Your task to perform on an android device: Open display settings Image 0: 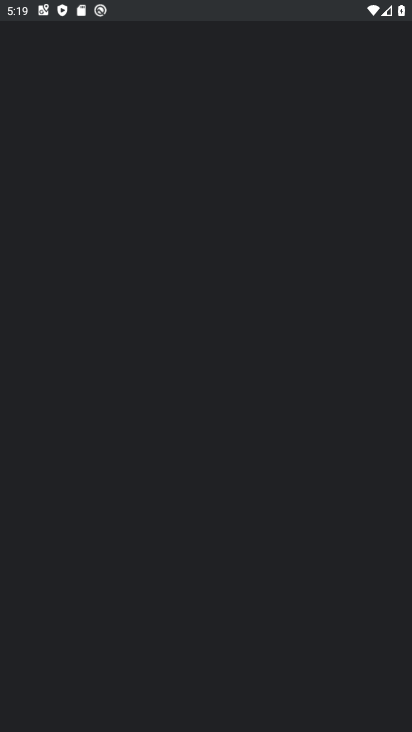
Step 0: drag from (217, 642) to (320, 24)
Your task to perform on an android device: Open display settings Image 1: 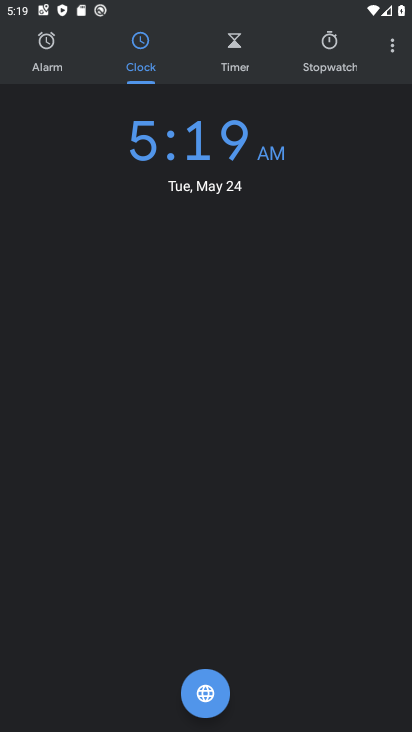
Step 1: press home button
Your task to perform on an android device: Open display settings Image 2: 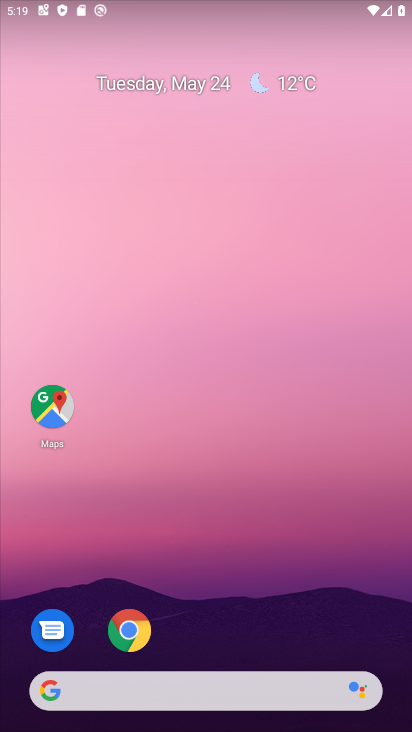
Step 2: drag from (206, 658) to (209, 77)
Your task to perform on an android device: Open display settings Image 3: 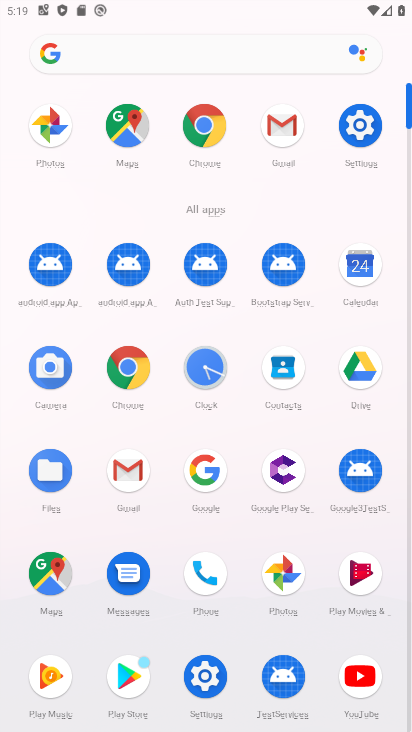
Step 3: click (359, 137)
Your task to perform on an android device: Open display settings Image 4: 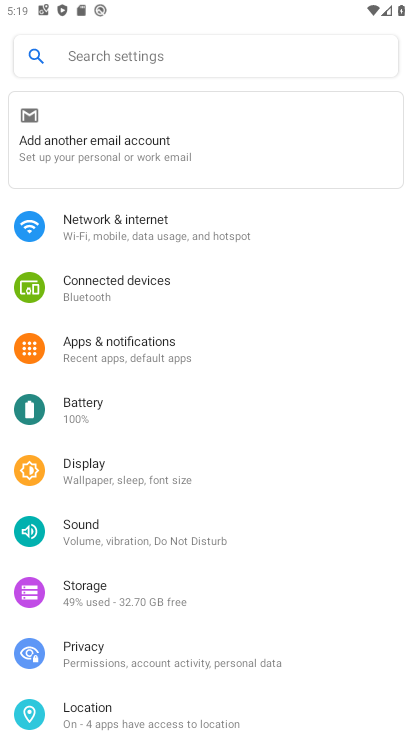
Step 4: click (88, 475)
Your task to perform on an android device: Open display settings Image 5: 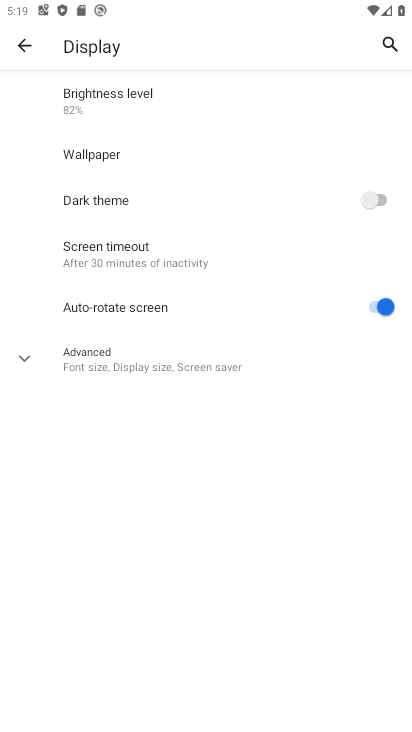
Step 5: task complete